Your task to perform on an android device: open app "Google Translate" (install if not already installed) Image 0: 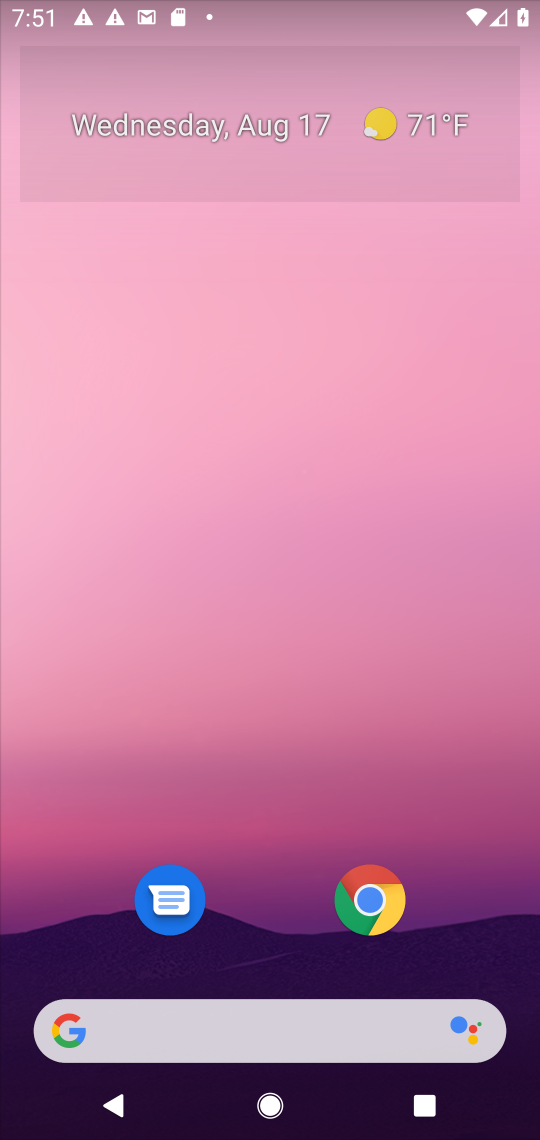
Step 0: drag from (206, 631) to (349, 124)
Your task to perform on an android device: open app "Google Translate" (install if not already installed) Image 1: 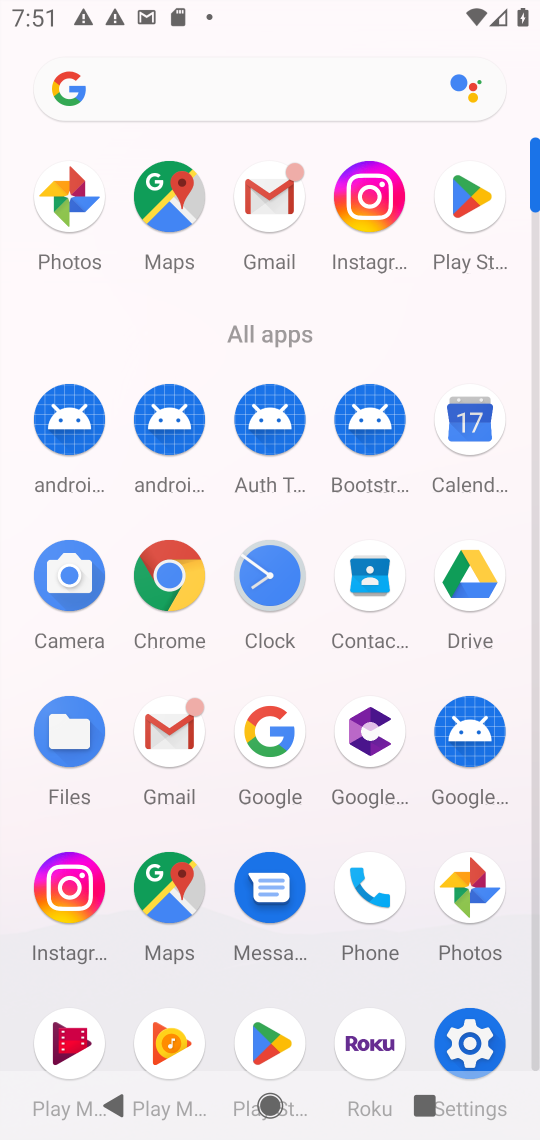
Step 1: click (461, 208)
Your task to perform on an android device: open app "Google Translate" (install if not already installed) Image 2: 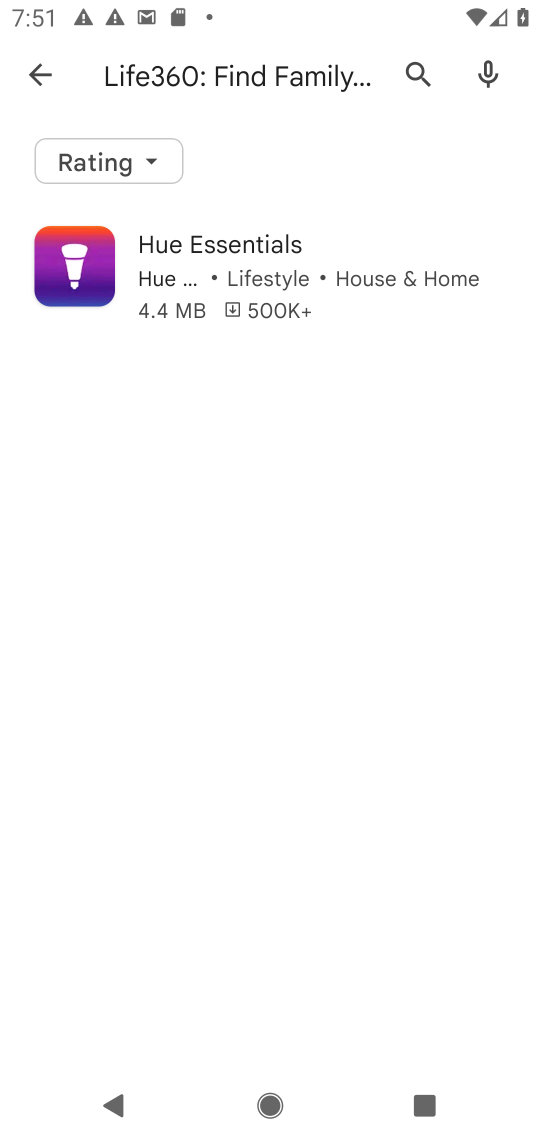
Step 2: click (48, 87)
Your task to perform on an android device: open app "Google Translate" (install if not already installed) Image 3: 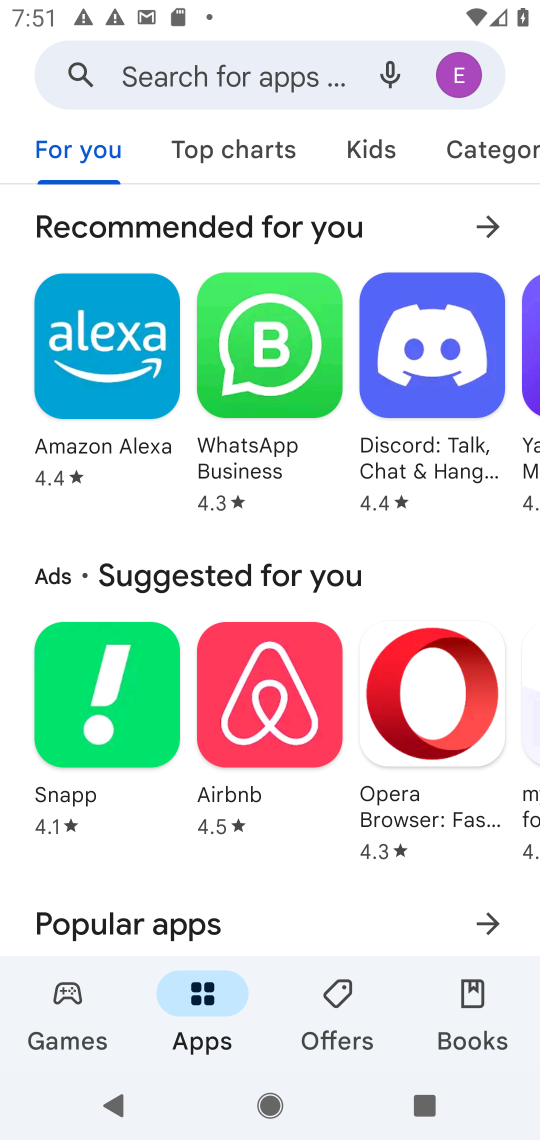
Step 3: click (163, 104)
Your task to perform on an android device: open app "Google Translate" (install if not already installed) Image 4: 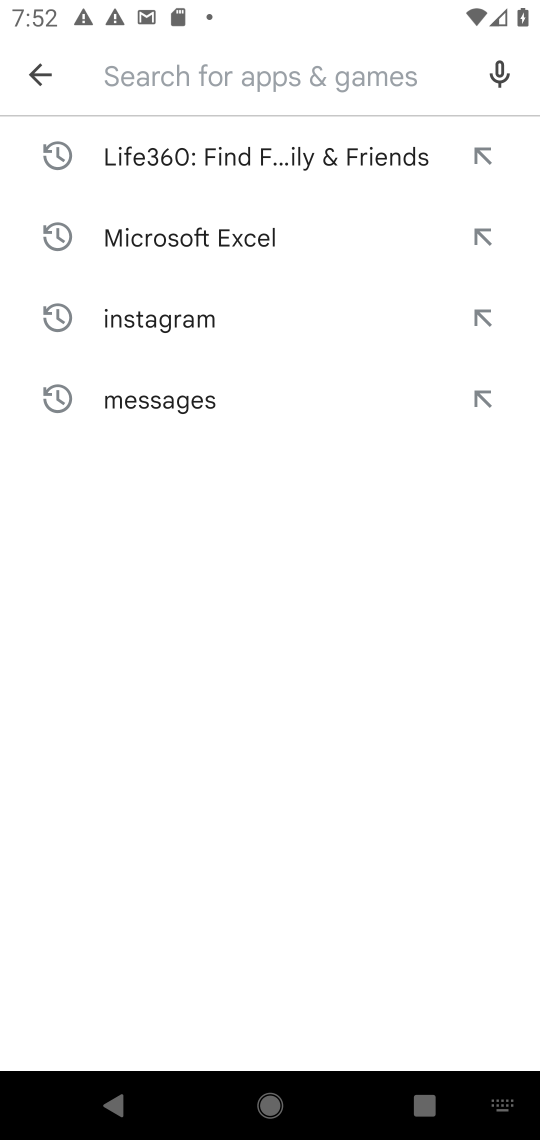
Step 4: type "Google Translate"
Your task to perform on an android device: open app "Google Translate" (install if not already installed) Image 5: 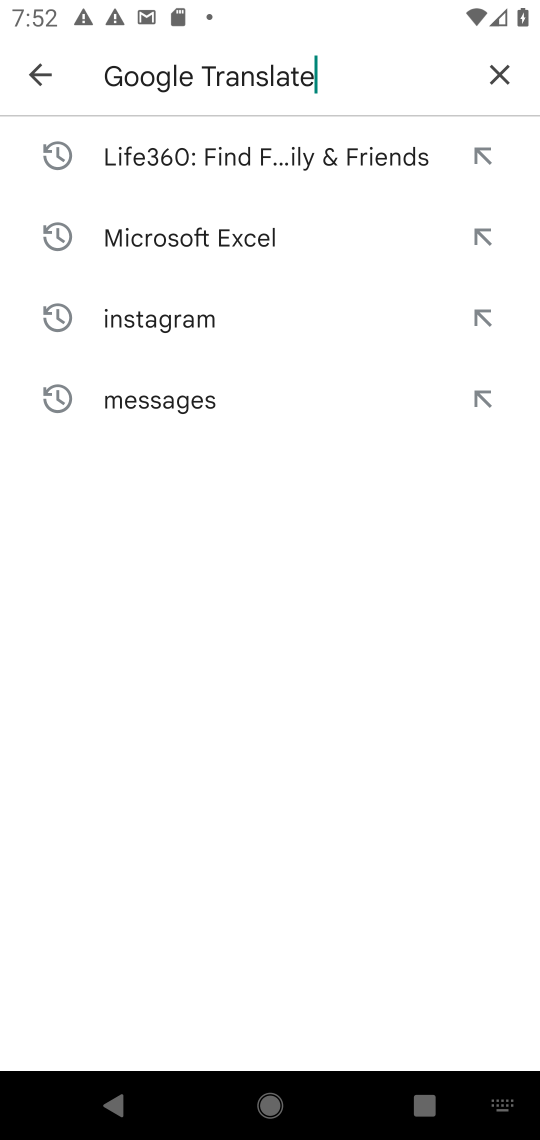
Step 5: press enter
Your task to perform on an android device: open app "Google Translate" (install if not already installed) Image 6: 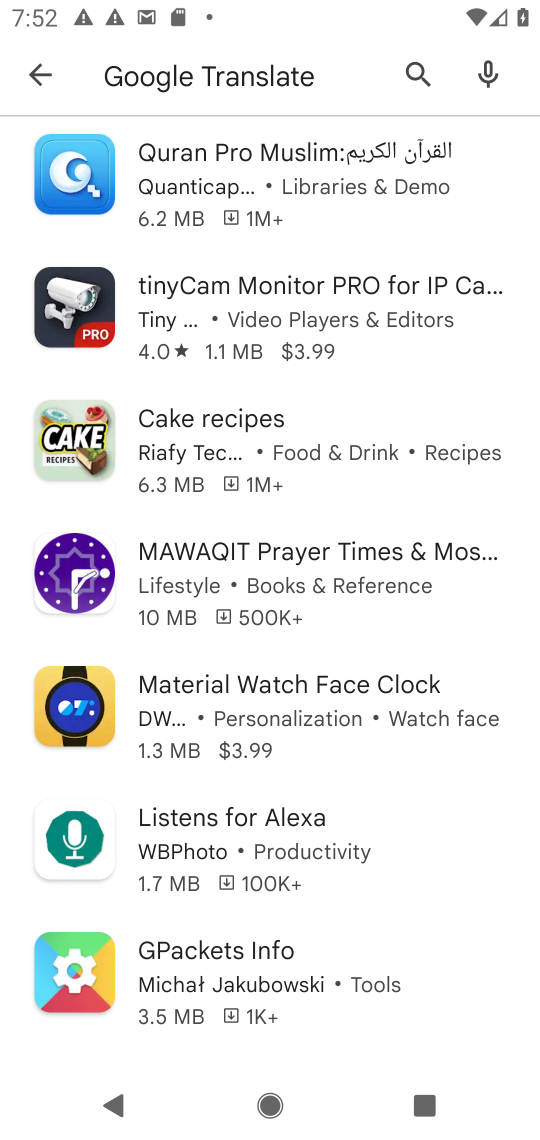
Step 6: task complete